Your task to perform on an android device: Open Yahoo.com Image 0: 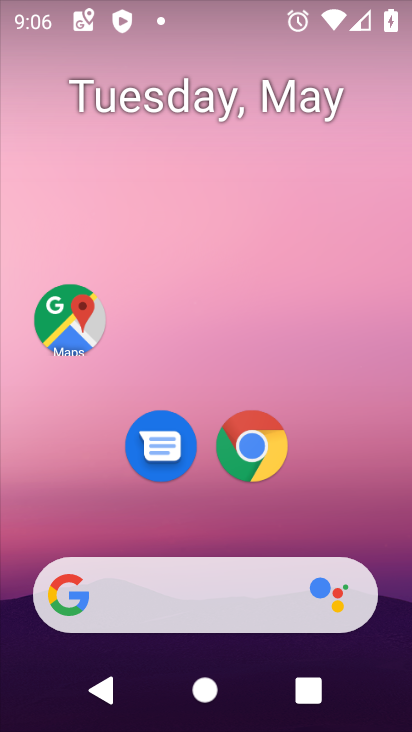
Step 0: click (251, 457)
Your task to perform on an android device: Open Yahoo.com Image 1: 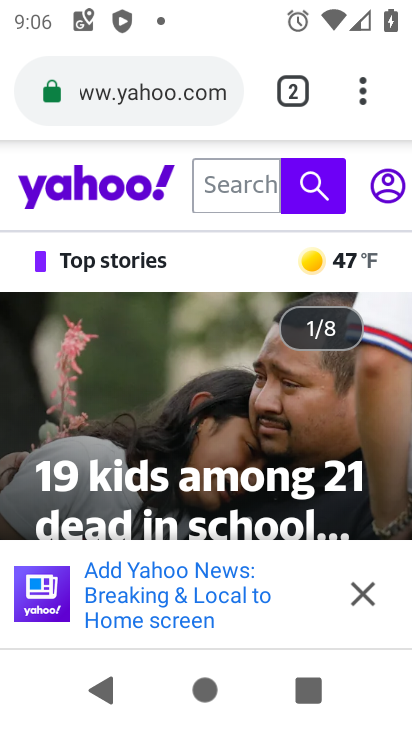
Step 1: task complete